Your task to perform on an android device: open a new tab in the chrome app Image 0: 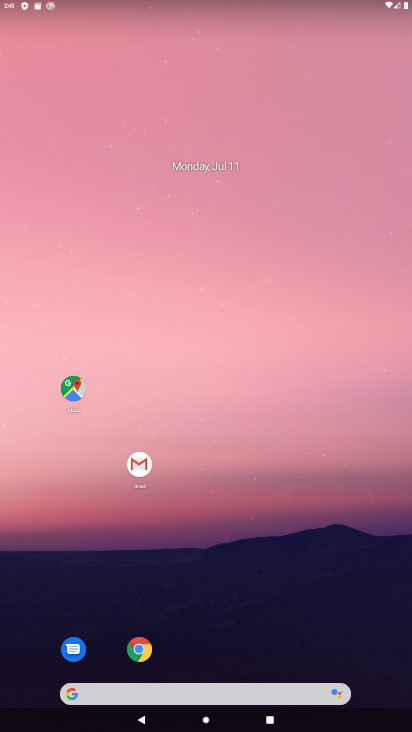
Step 0: click (146, 651)
Your task to perform on an android device: open a new tab in the chrome app Image 1: 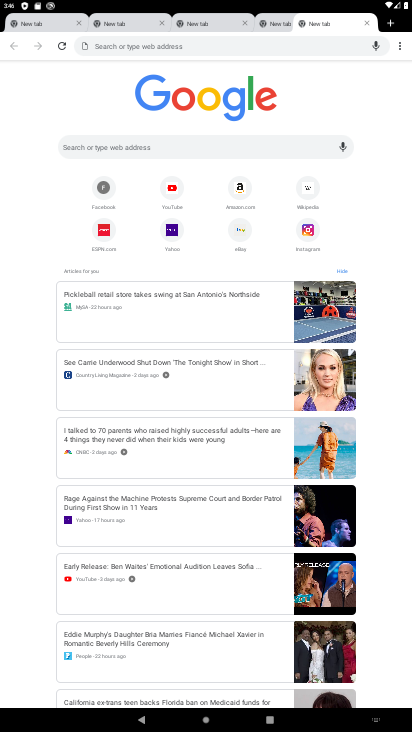
Step 1: click (386, 22)
Your task to perform on an android device: open a new tab in the chrome app Image 2: 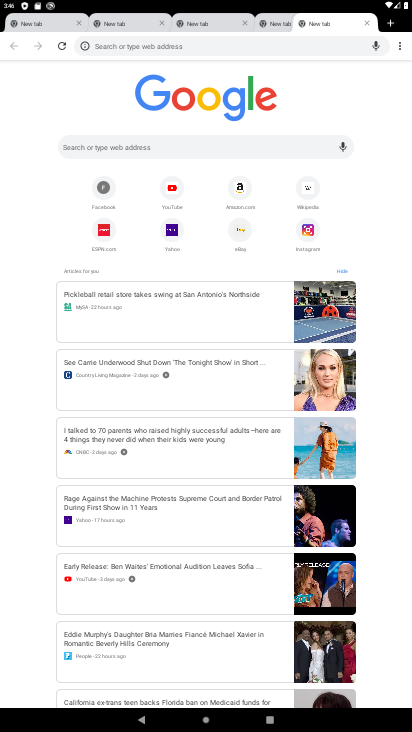
Step 2: task complete